Your task to perform on an android device: open a bookmark in the chrome app Image 0: 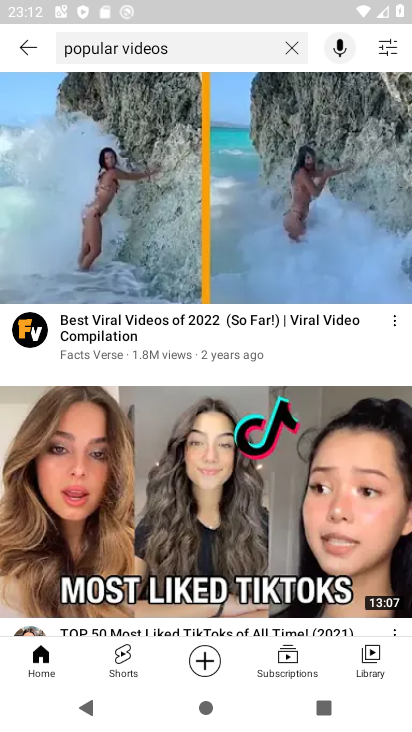
Step 0: click (227, 203)
Your task to perform on an android device: open a bookmark in the chrome app Image 1: 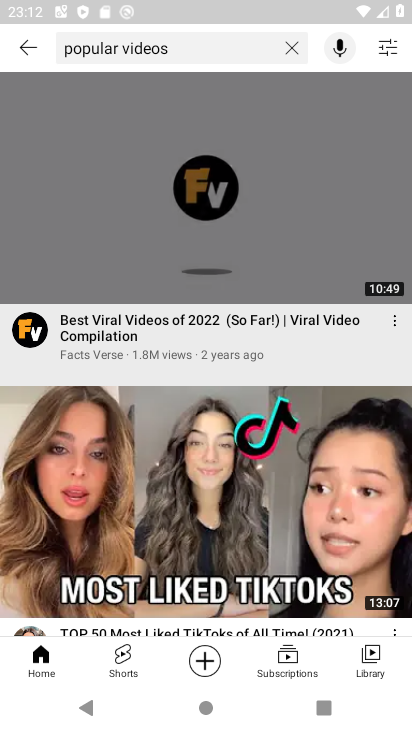
Step 1: press back button
Your task to perform on an android device: open a bookmark in the chrome app Image 2: 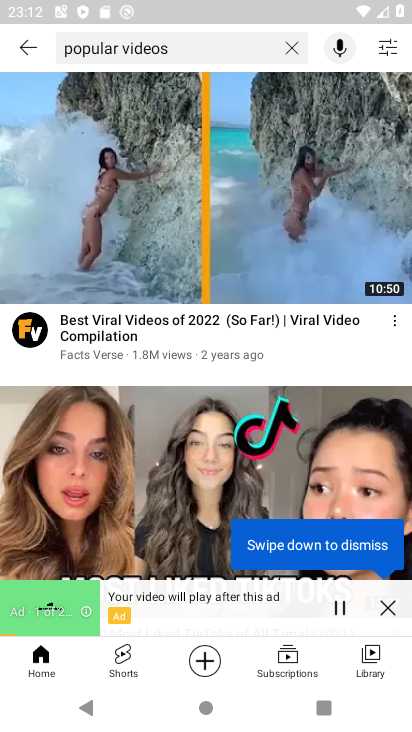
Step 2: press home button
Your task to perform on an android device: open a bookmark in the chrome app Image 3: 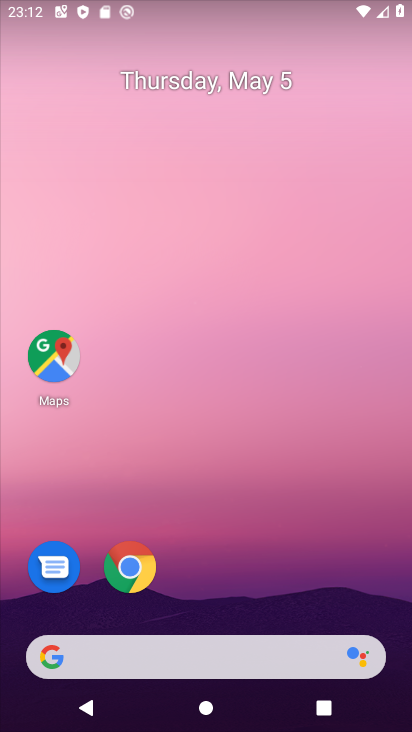
Step 3: click (139, 561)
Your task to perform on an android device: open a bookmark in the chrome app Image 4: 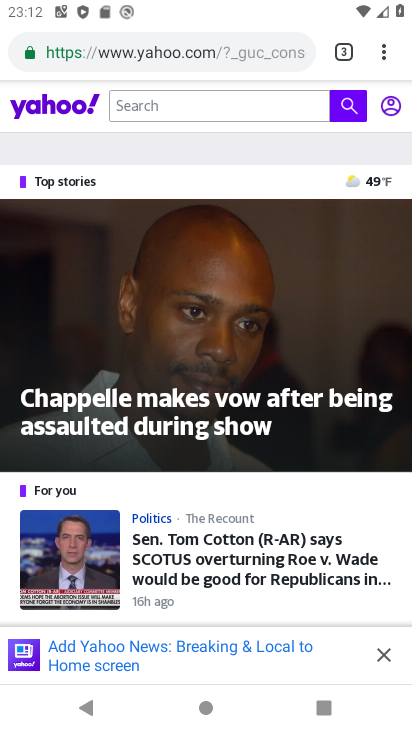
Step 4: click (376, 50)
Your task to perform on an android device: open a bookmark in the chrome app Image 5: 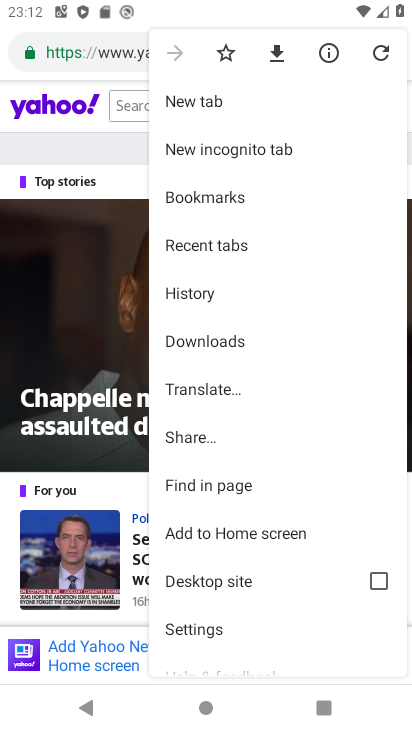
Step 5: click (230, 198)
Your task to perform on an android device: open a bookmark in the chrome app Image 6: 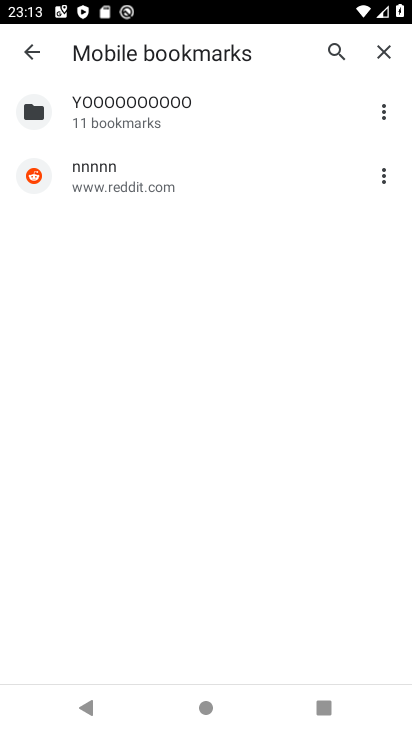
Step 6: click (121, 182)
Your task to perform on an android device: open a bookmark in the chrome app Image 7: 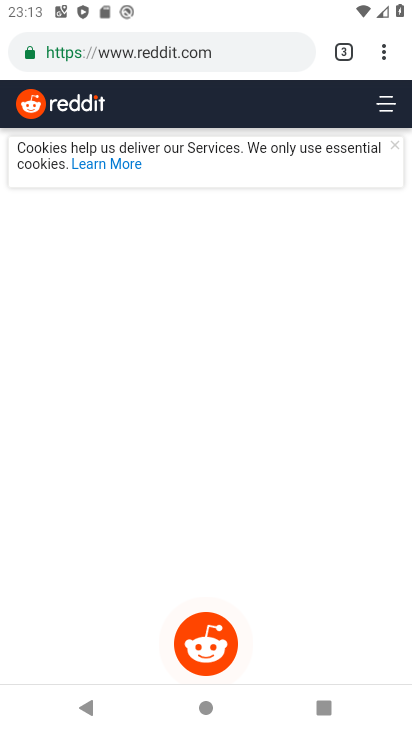
Step 7: task complete